Your task to perform on an android device: Show me popular games on the Play Store Image 0: 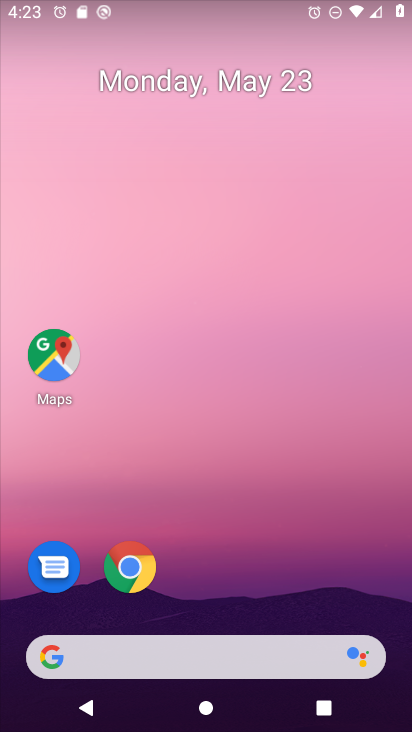
Step 0: drag from (391, 615) to (332, 66)
Your task to perform on an android device: Show me popular games on the Play Store Image 1: 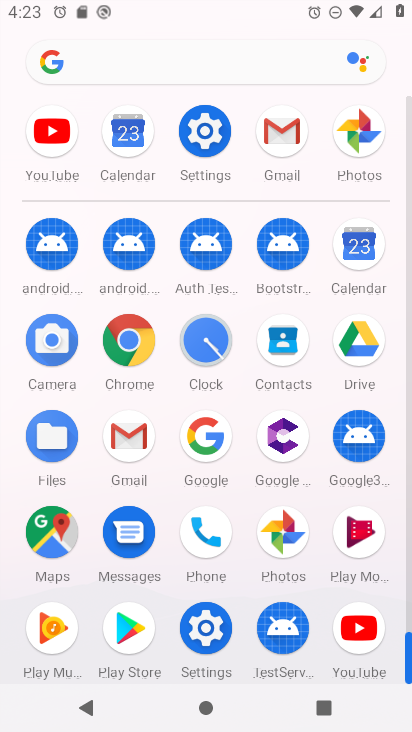
Step 1: click (135, 629)
Your task to perform on an android device: Show me popular games on the Play Store Image 2: 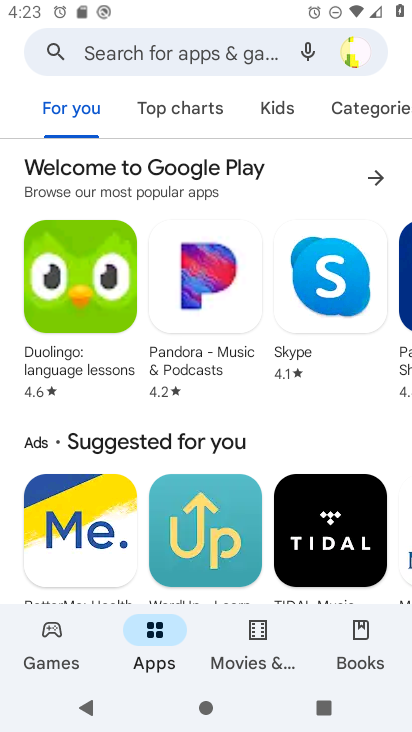
Step 2: click (34, 646)
Your task to perform on an android device: Show me popular games on the Play Store Image 3: 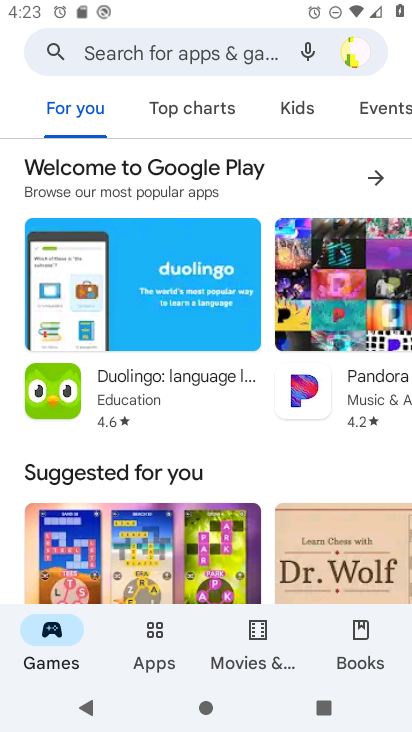
Step 3: drag from (271, 465) to (268, 232)
Your task to perform on an android device: Show me popular games on the Play Store Image 4: 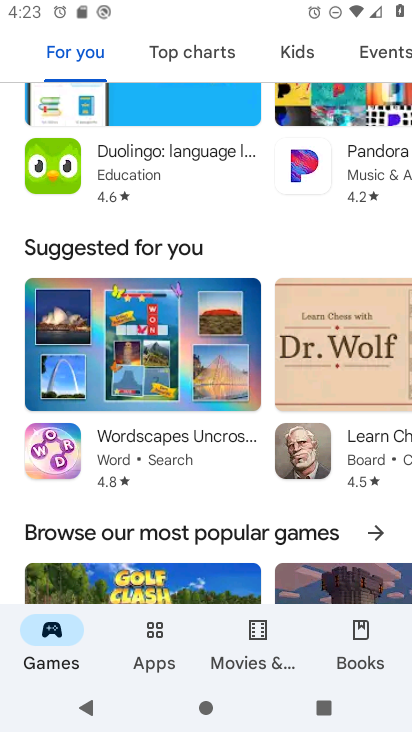
Step 4: click (378, 525)
Your task to perform on an android device: Show me popular games on the Play Store Image 5: 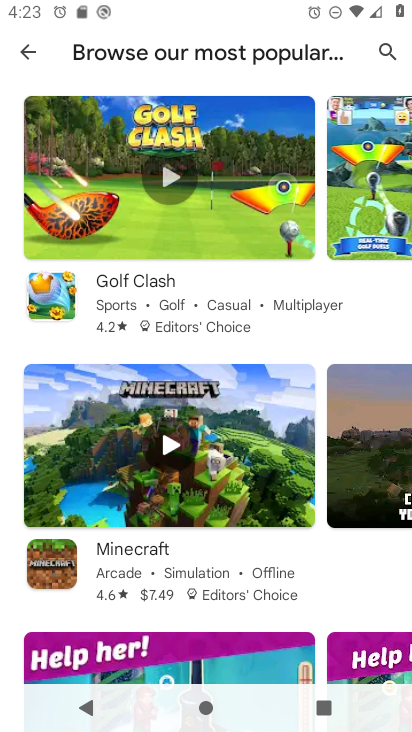
Step 5: task complete